Your task to perform on an android device: Open Android settings Image 0: 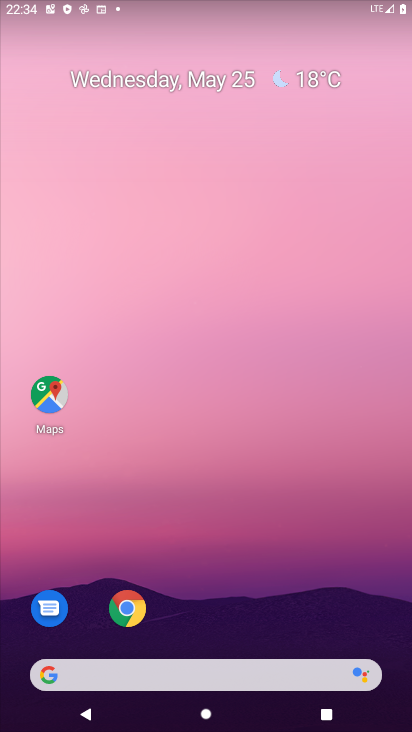
Step 0: drag from (299, 516) to (241, 53)
Your task to perform on an android device: Open Android settings Image 1: 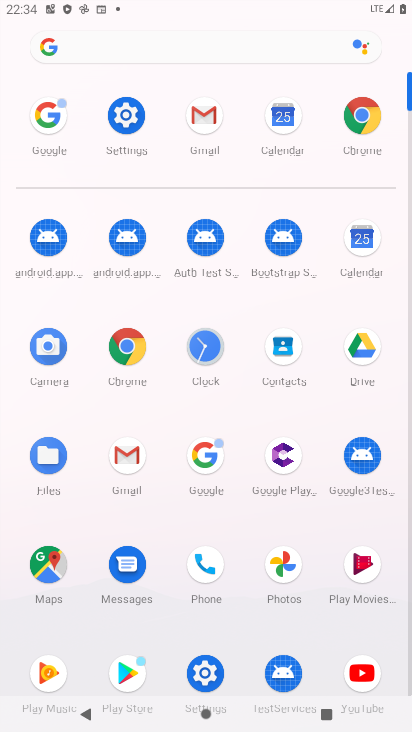
Step 1: click (122, 104)
Your task to perform on an android device: Open Android settings Image 2: 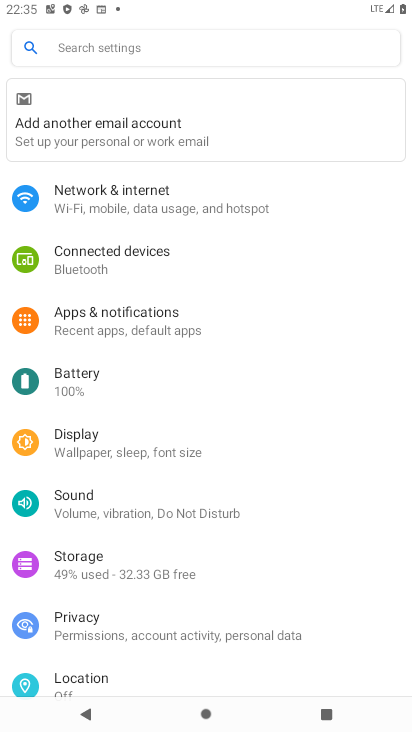
Step 2: drag from (203, 582) to (211, 88)
Your task to perform on an android device: Open Android settings Image 3: 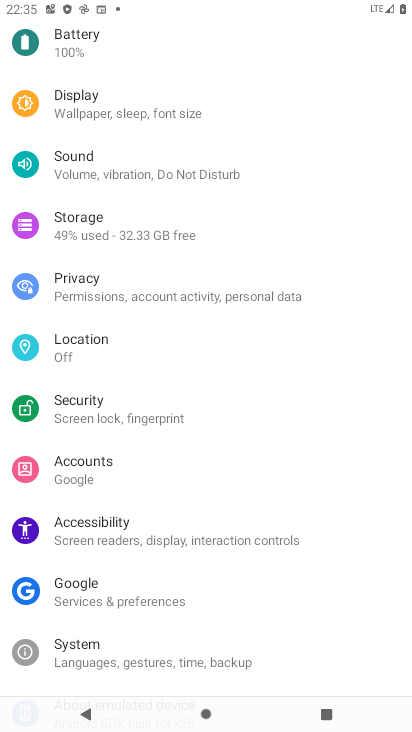
Step 3: drag from (167, 583) to (209, 45)
Your task to perform on an android device: Open Android settings Image 4: 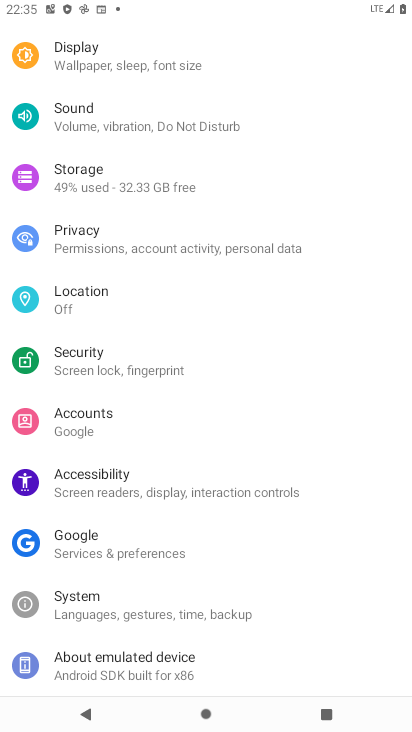
Step 4: click (197, 661)
Your task to perform on an android device: Open Android settings Image 5: 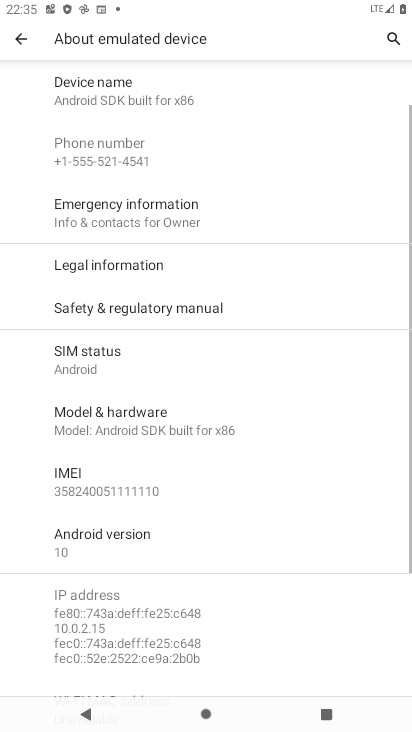
Step 5: click (162, 526)
Your task to perform on an android device: Open Android settings Image 6: 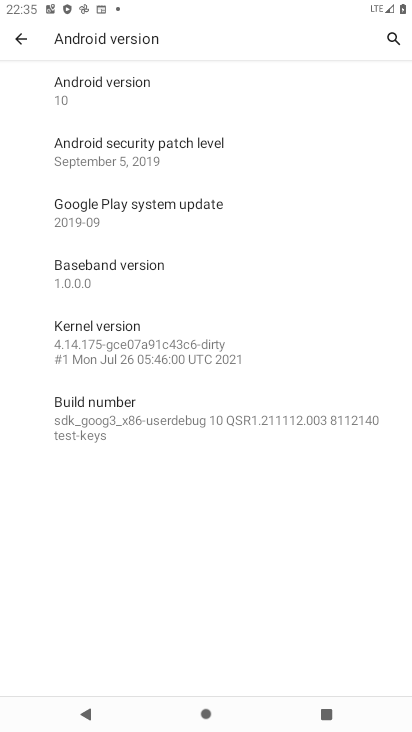
Step 6: task complete